Your task to perform on an android device: Open calendar and show me the first week of next month Image 0: 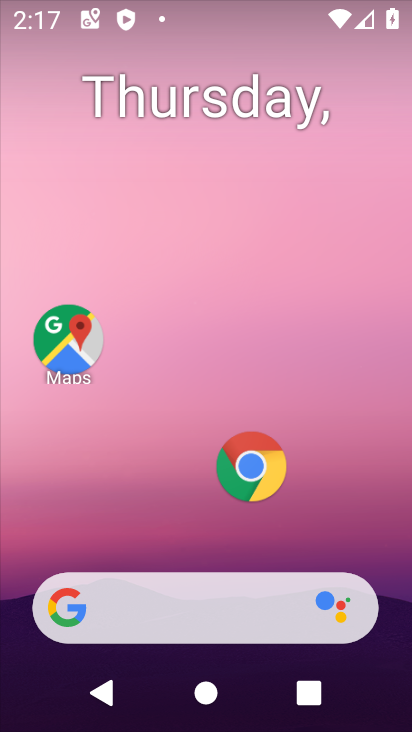
Step 0: drag from (211, 551) to (211, 207)
Your task to perform on an android device: Open calendar and show me the first week of next month Image 1: 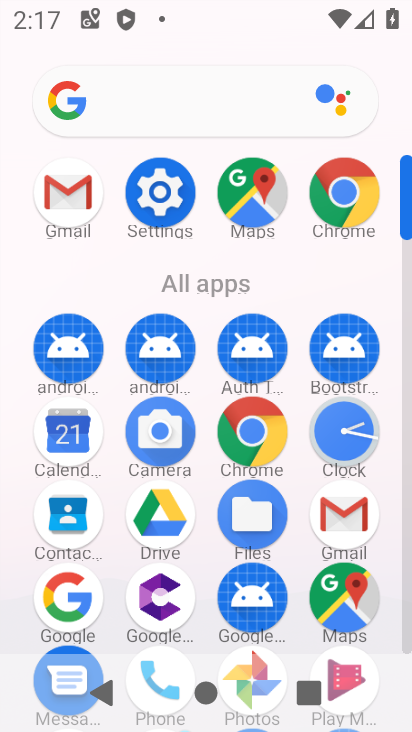
Step 1: click (61, 437)
Your task to perform on an android device: Open calendar and show me the first week of next month Image 2: 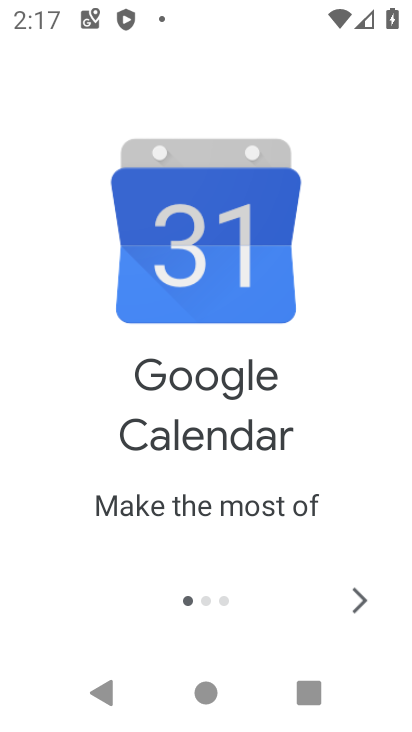
Step 2: click (369, 603)
Your task to perform on an android device: Open calendar and show me the first week of next month Image 3: 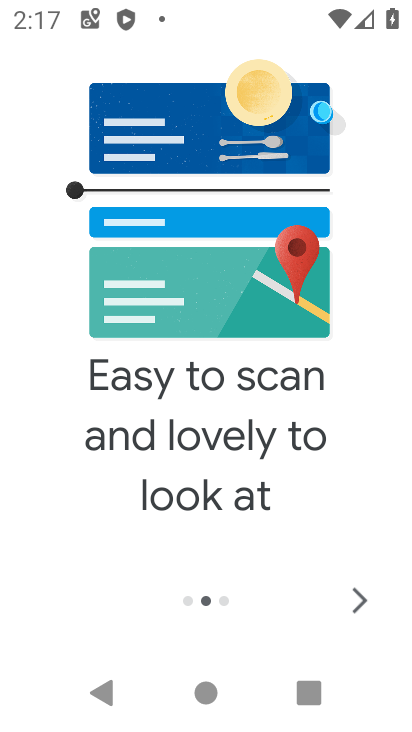
Step 3: click (369, 603)
Your task to perform on an android device: Open calendar and show me the first week of next month Image 4: 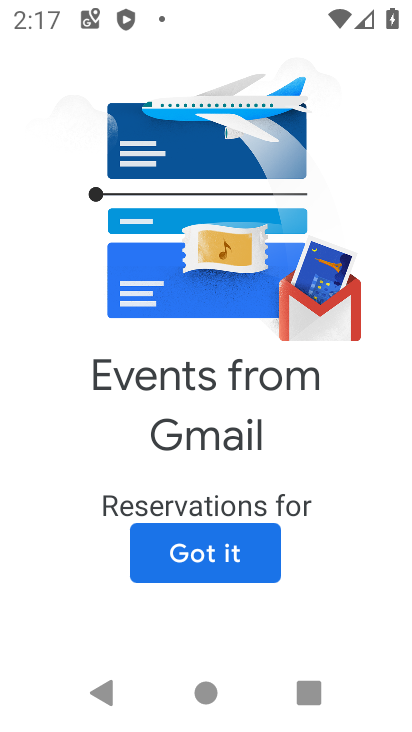
Step 4: click (234, 558)
Your task to perform on an android device: Open calendar and show me the first week of next month Image 5: 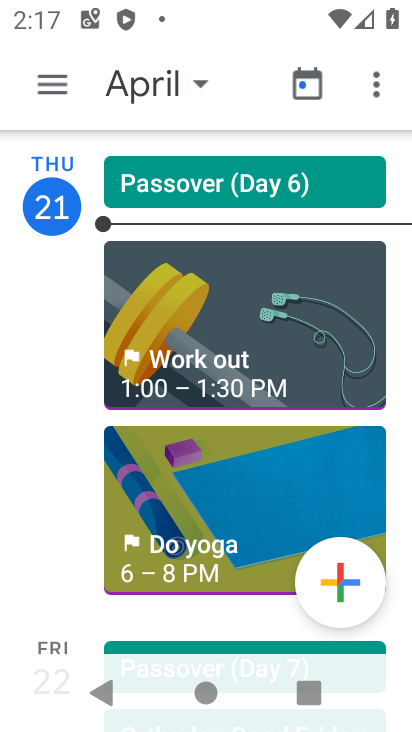
Step 5: click (168, 77)
Your task to perform on an android device: Open calendar and show me the first week of next month Image 6: 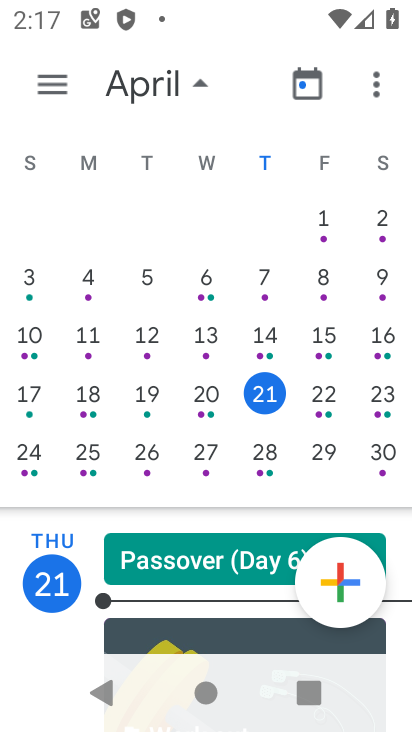
Step 6: drag from (354, 340) to (46, 323)
Your task to perform on an android device: Open calendar and show me the first week of next month Image 7: 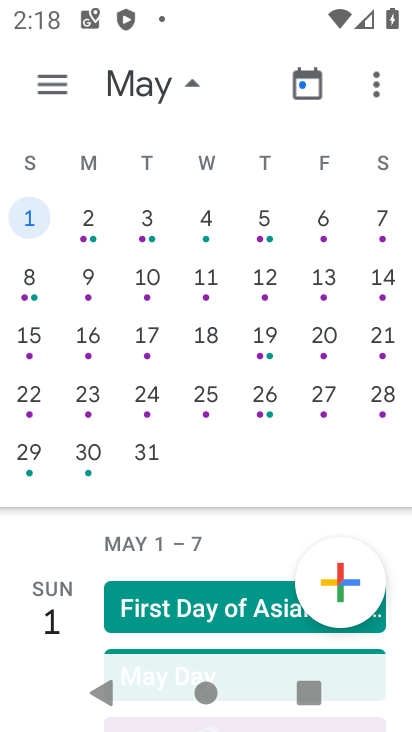
Step 7: click (133, 230)
Your task to perform on an android device: Open calendar and show me the first week of next month Image 8: 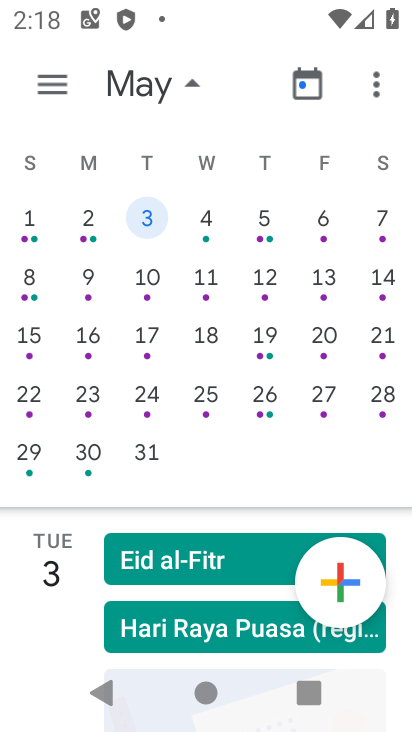
Step 8: click (91, 218)
Your task to perform on an android device: Open calendar and show me the first week of next month Image 9: 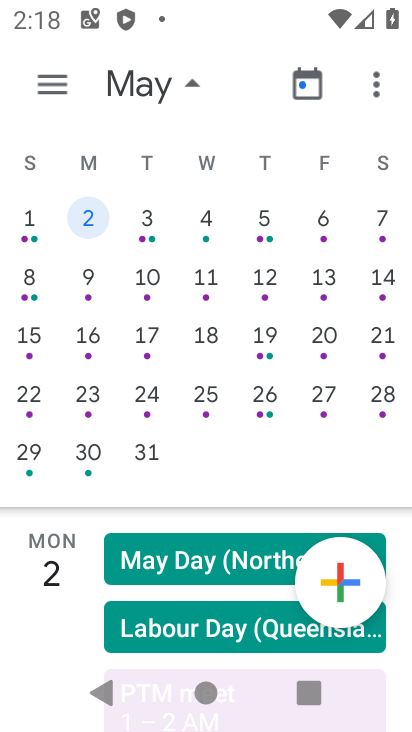
Step 9: task complete